Your task to perform on an android device: create a new album in the google photos Image 0: 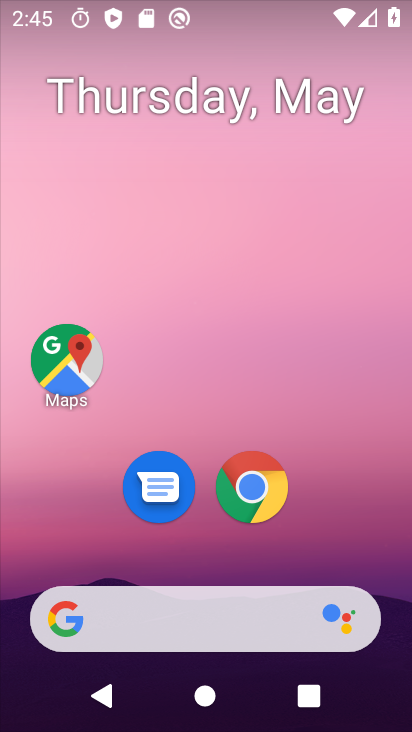
Step 0: drag from (115, 572) to (210, 165)
Your task to perform on an android device: create a new album in the google photos Image 1: 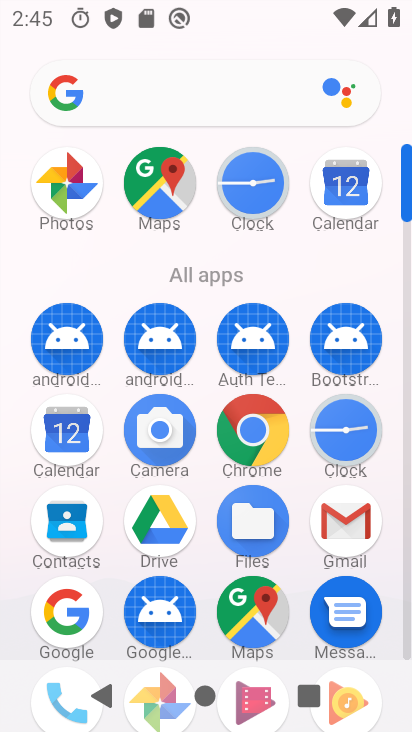
Step 1: drag from (194, 614) to (234, 424)
Your task to perform on an android device: create a new album in the google photos Image 2: 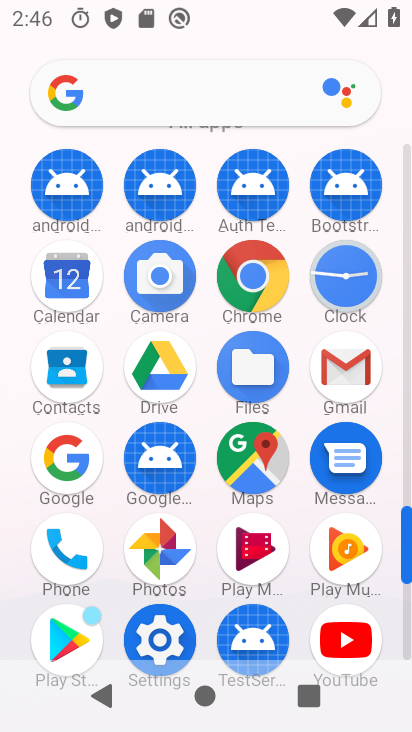
Step 2: click (171, 534)
Your task to perform on an android device: create a new album in the google photos Image 3: 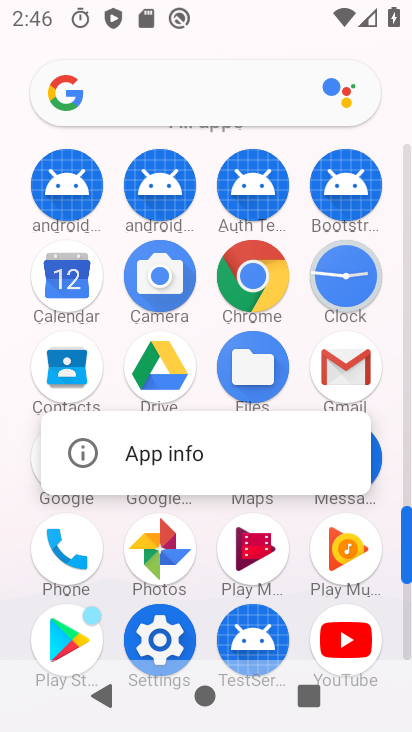
Step 3: click (173, 534)
Your task to perform on an android device: create a new album in the google photos Image 4: 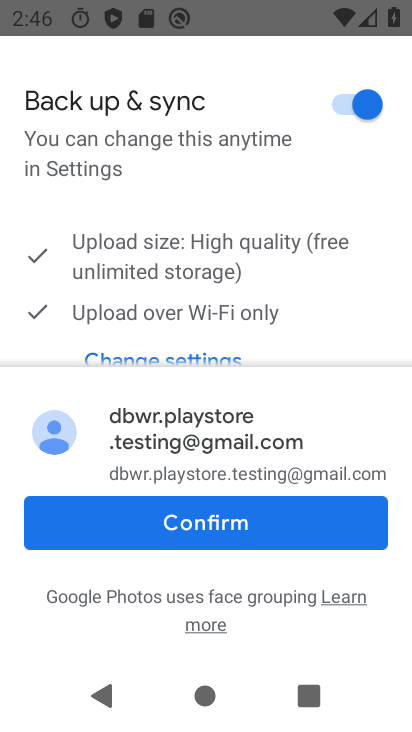
Step 4: click (218, 539)
Your task to perform on an android device: create a new album in the google photos Image 5: 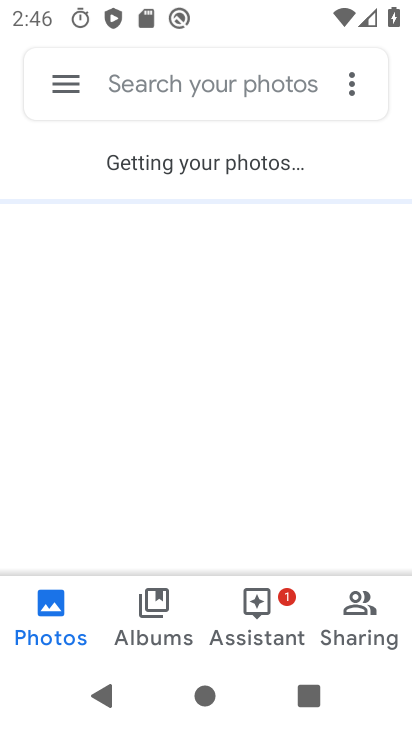
Step 5: click (355, 104)
Your task to perform on an android device: create a new album in the google photos Image 6: 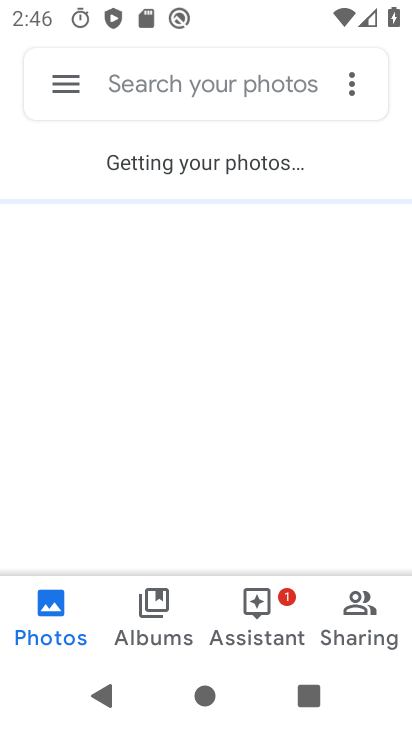
Step 6: click (355, 98)
Your task to perform on an android device: create a new album in the google photos Image 7: 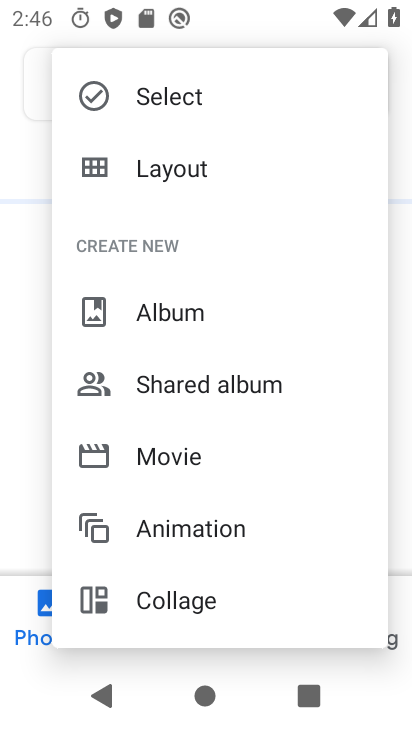
Step 7: click (251, 307)
Your task to perform on an android device: create a new album in the google photos Image 8: 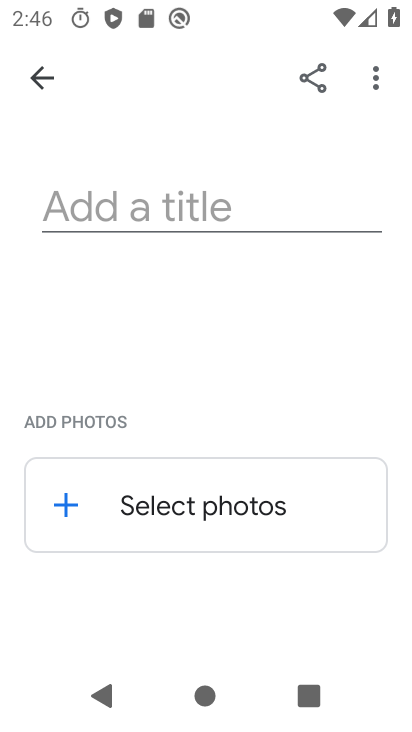
Step 8: click (213, 219)
Your task to perform on an android device: create a new album in the google photos Image 9: 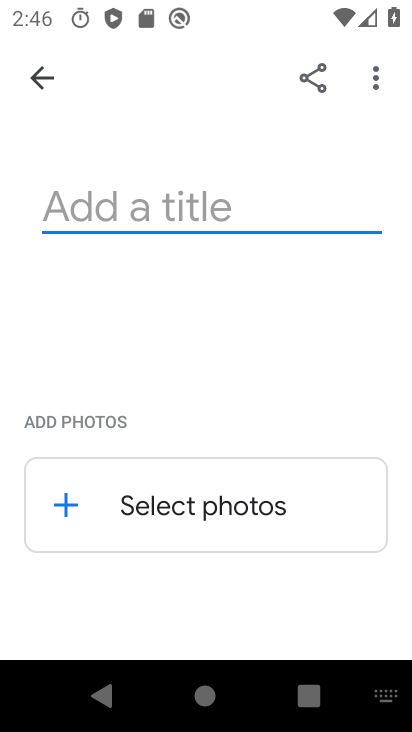
Step 9: type "xcxcxcx"
Your task to perform on an android device: create a new album in the google photos Image 10: 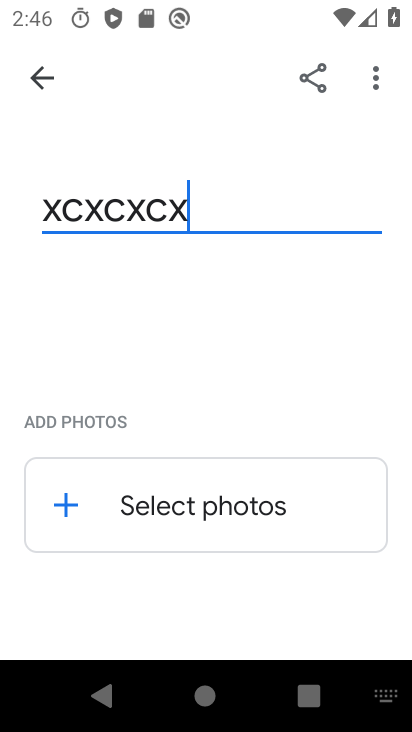
Step 10: click (330, 531)
Your task to perform on an android device: create a new album in the google photos Image 11: 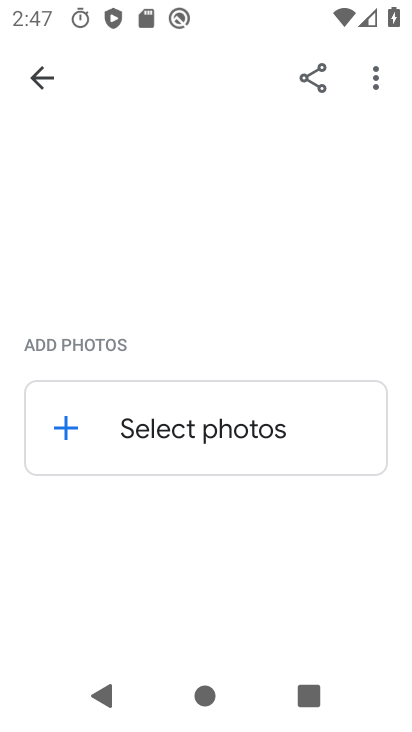
Step 11: click (278, 463)
Your task to perform on an android device: create a new album in the google photos Image 12: 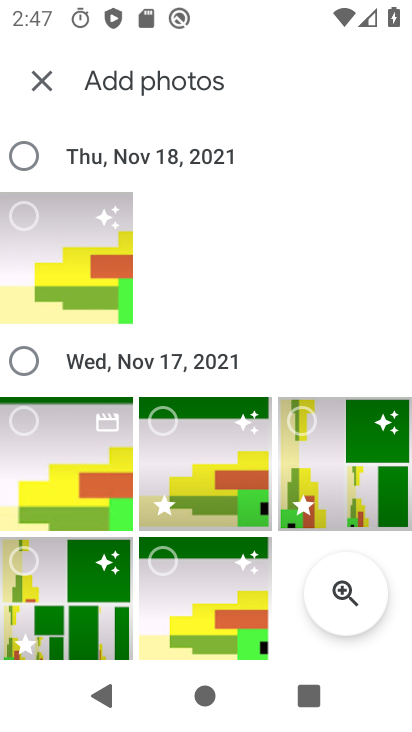
Step 12: click (21, 145)
Your task to perform on an android device: create a new album in the google photos Image 13: 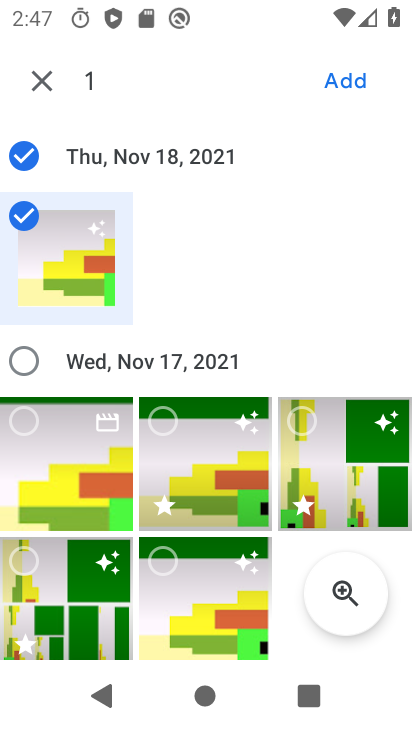
Step 13: click (38, 354)
Your task to perform on an android device: create a new album in the google photos Image 14: 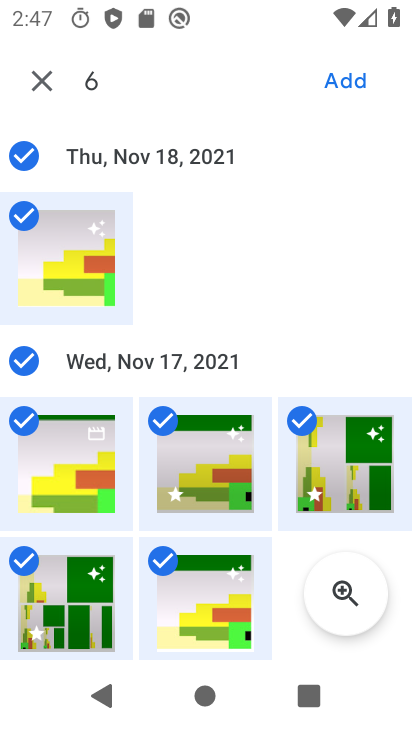
Step 14: drag from (86, 444) to (167, 223)
Your task to perform on an android device: create a new album in the google photos Image 15: 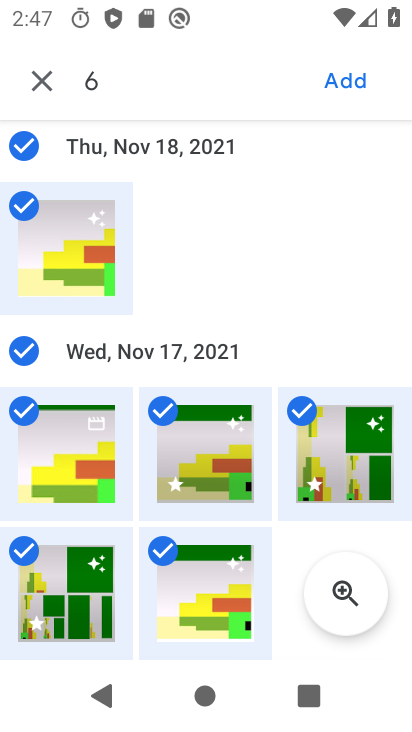
Step 15: click (337, 86)
Your task to perform on an android device: create a new album in the google photos Image 16: 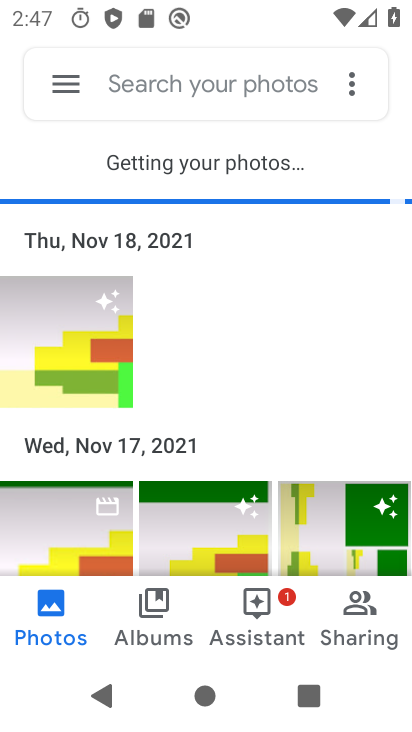
Step 16: click (101, 349)
Your task to perform on an android device: create a new album in the google photos Image 17: 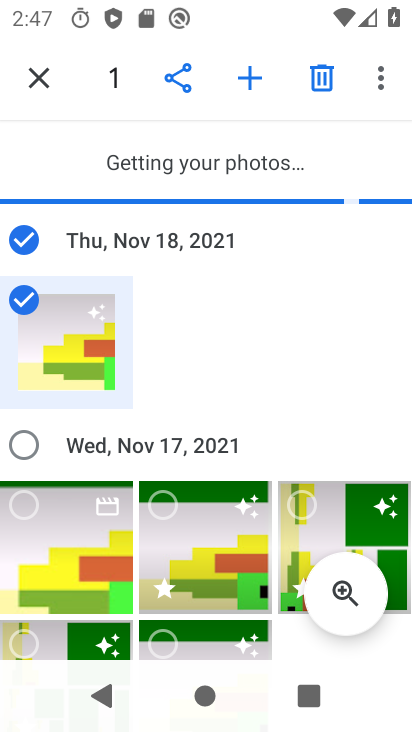
Step 17: click (29, 450)
Your task to perform on an android device: create a new album in the google photos Image 18: 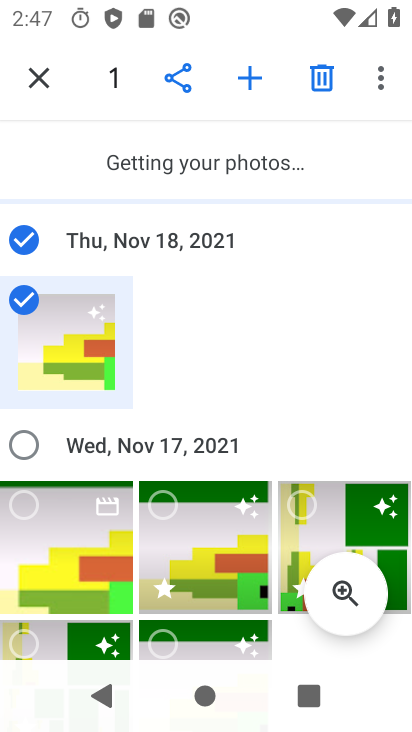
Step 18: click (24, 445)
Your task to perform on an android device: create a new album in the google photos Image 19: 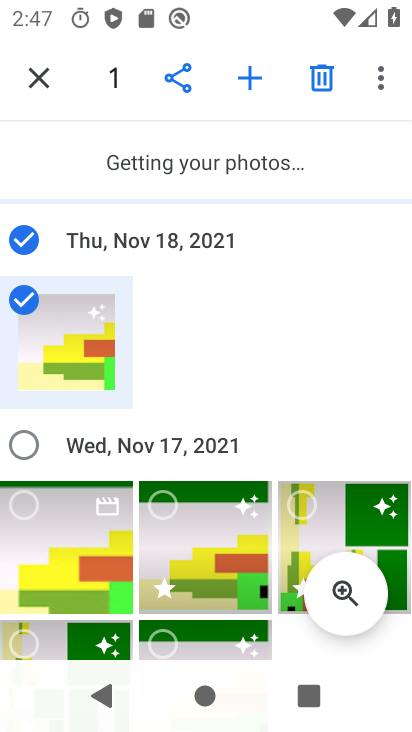
Step 19: click (24, 446)
Your task to perform on an android device: create a new album in the google photos Image 20: 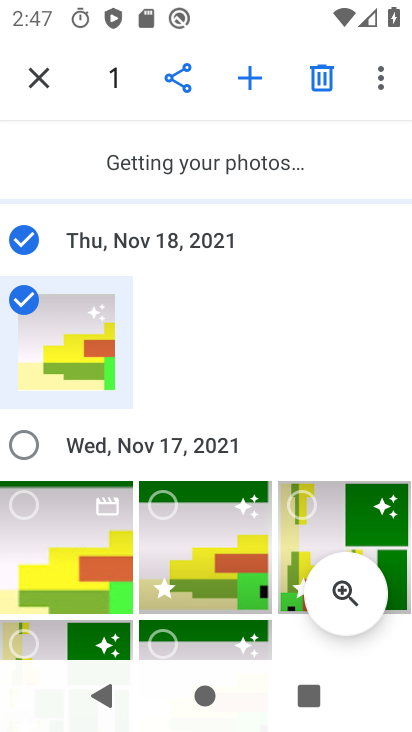
Step 20: click (251, 79)
Your task to perform on an android device: create a new album in the google photos Image 21: 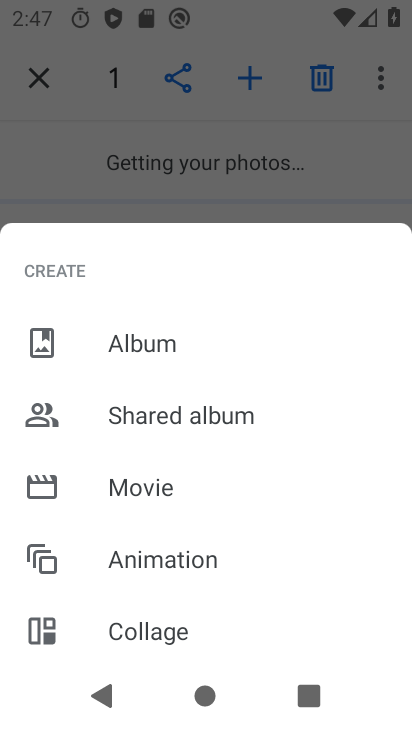
Step 21: click (209, 371)
Your task to perform on an android device: create a new album in the google photos Image 22: 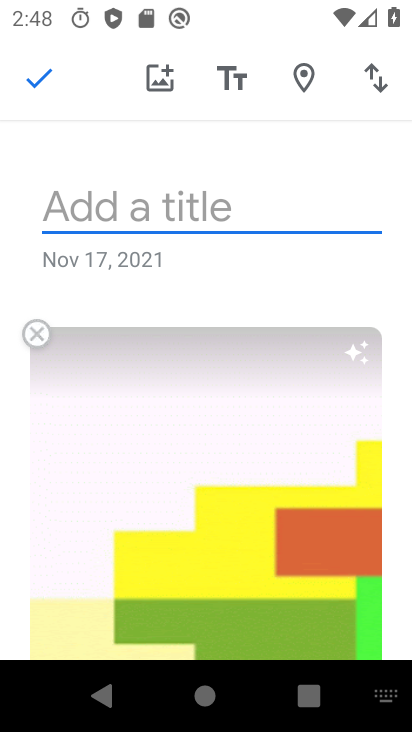
Step 22: type "xcxcxc"
Your task to perform on an android device: create a new album in the google photos Image 23: 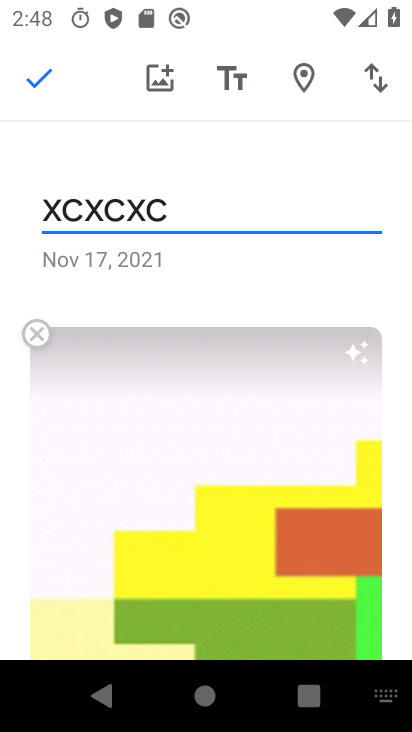
Step 23: click (63, 89)
Your task to perform on an android device: create a new album in the google photos Image 24: 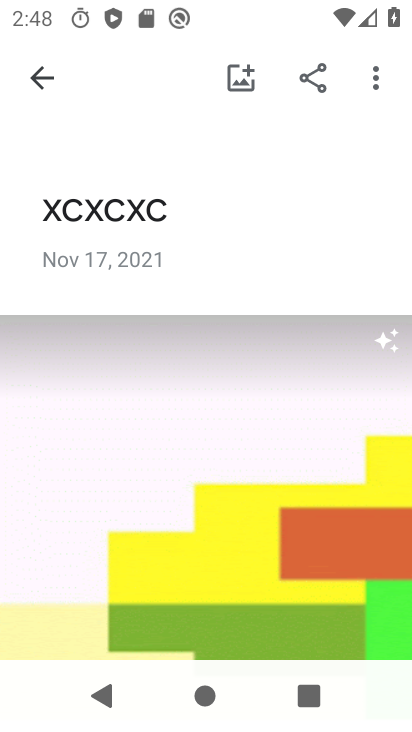
Step 24: task complete